Your task to perform on an android device: turn on airplane mode Image 0: 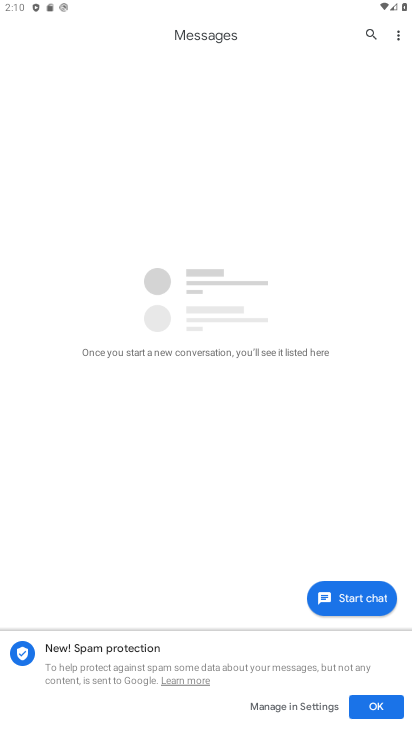
Step 0: press home button
Your task to perform on an android device: turn on airplane mode Image 1: 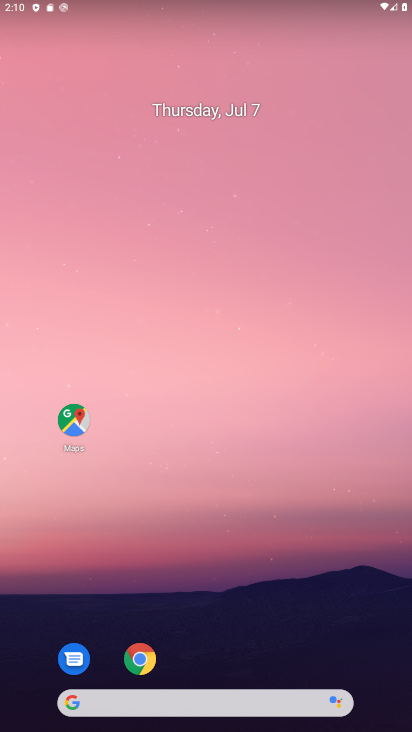
Step 1: drag from (196, 579) to (99, 58)
Your task to perform on an android device: turn on airplane mode Image 2: 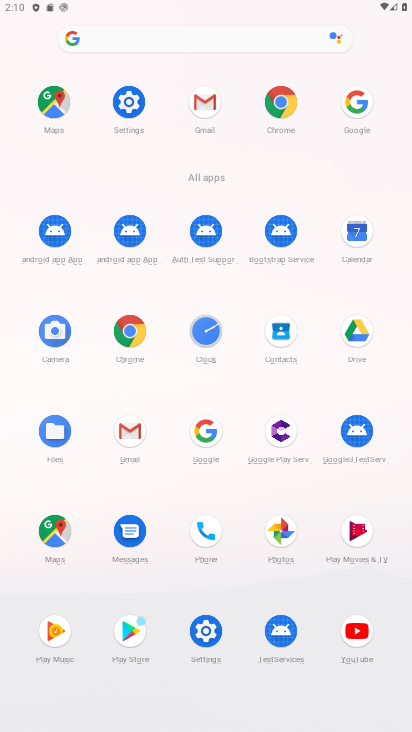
Step 2: click (127, 98)
Your task to perform on an android device: turn on airplane mode Image 3: 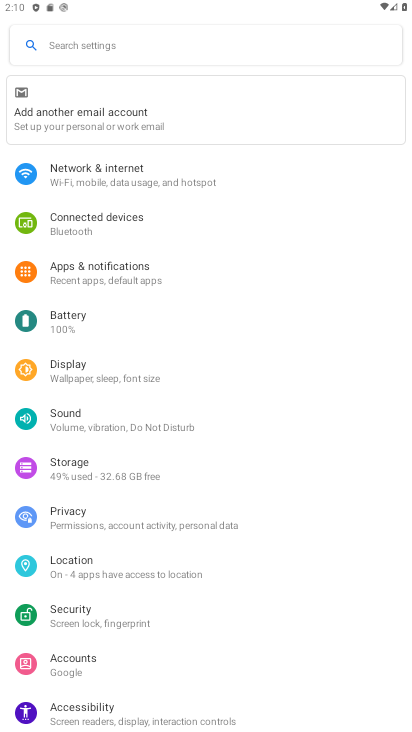
Step 3: click (124, 178)
Your task to perform on an android device: turn on airplane mode Image 4: 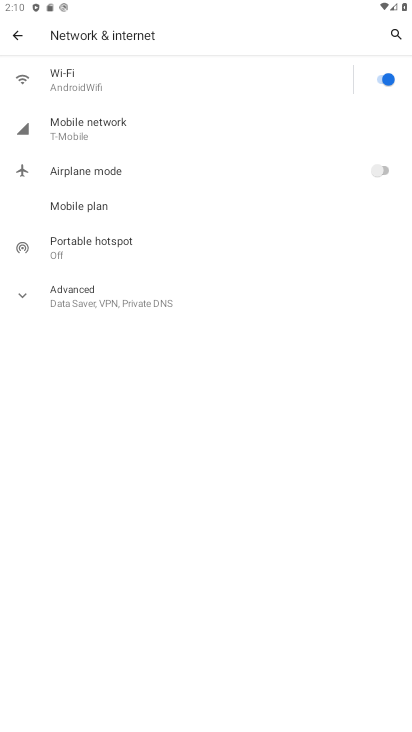
Step 4: click (379, 176)
Your task to perform on an android device: turn on airplane mode Image 5: 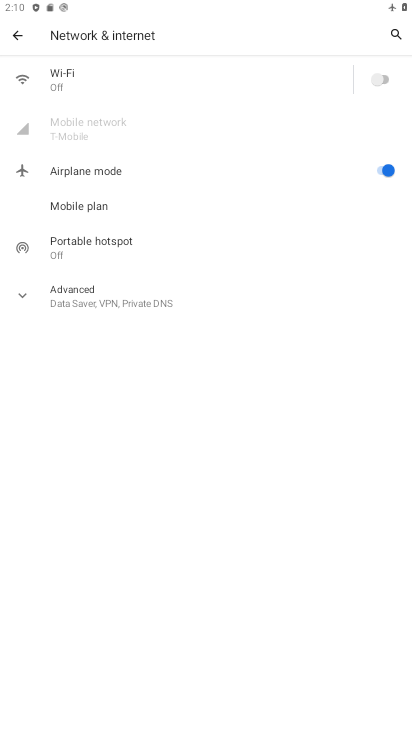
Step 5: task complete